Your task to perform on an android device: open app "Messenger Lite" (install if not already installed) and go to login screen Image 0: 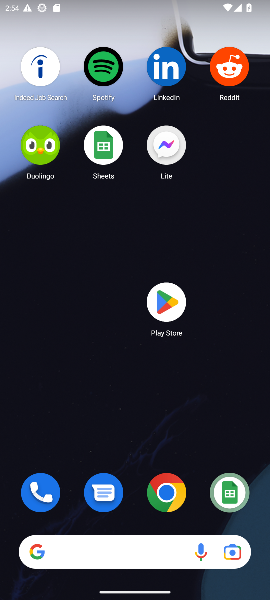
Step 0: click (158, 315)
Your task to perform on an android device: open app "Messenger Lite" (install if not already installed) and go to login screen Image 1: 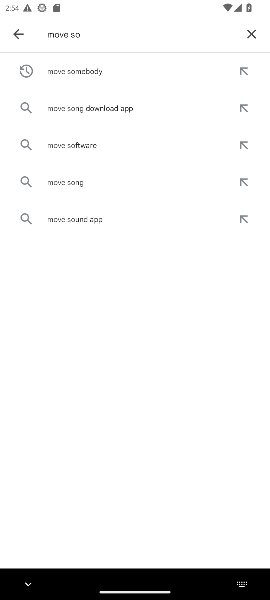
Step 1: click (249, 38)
Your task to perform on an android device: open app "Messenger Lite" (install if not already installed) and go to login screen Image 2: 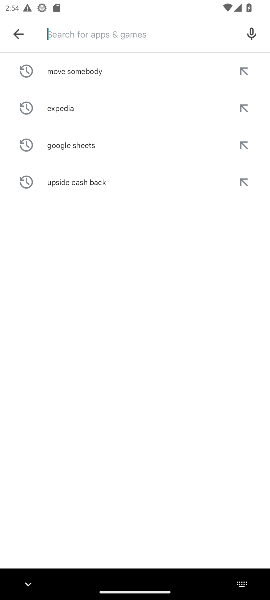
Step 2: type "messanger lite"
Your task to perform on an android device: open app "Messenger Lite" (install if not already installed) and go to login screen Image 3: 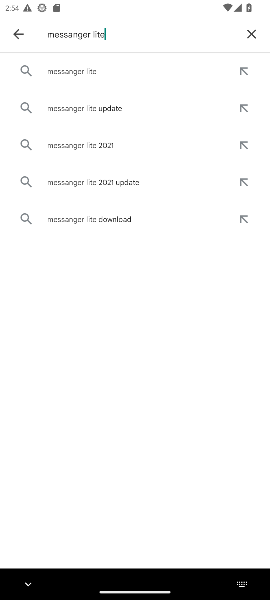
Step 3: click (113, 66)
Your task to perform on an android device: open app "Messenger Lite" (install if not already installed) and go to login screen Image 4: 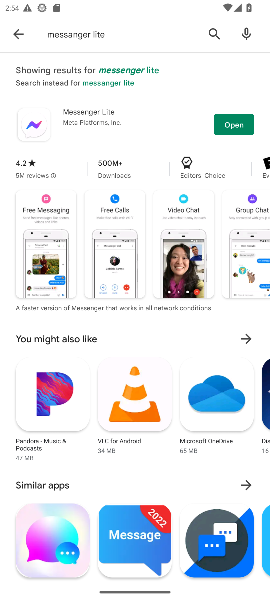
Step 4: click (233, 125)
Your task to perform on an android device: open app "Messenger Lite" (install if not already installed) and go to login screen Image 5: 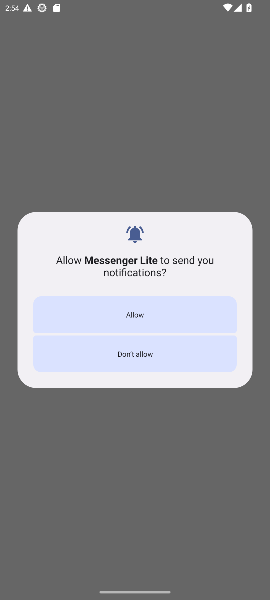
Step 5: task complete